Your task to perform on an android device: change the clock display to digital Image 0: 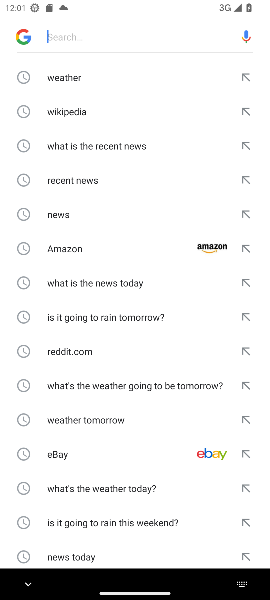
Step 0: press home button
Your task to perform on an android device: change the clock display to digital Image 1: 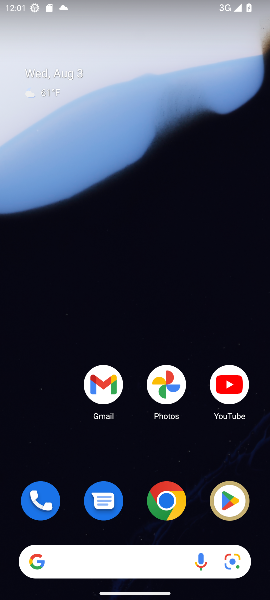
Step 1: drag from (156, 439) to (133, 1)
Your task to perform on an android device: change the clock display to digital Image 2: 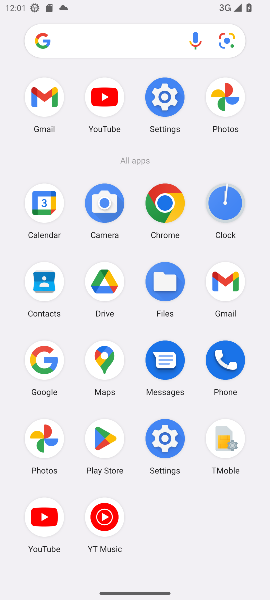
Step 2: click (215, 194)
Your task to perform on an android device: change the clock display to digital Image 3: 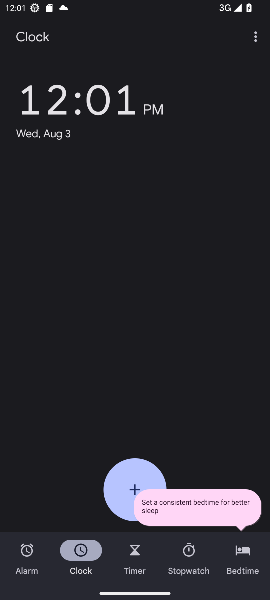
Step 3: click (253, 37)
Your task to perform on an android device: change the clock display to digital Image 4: 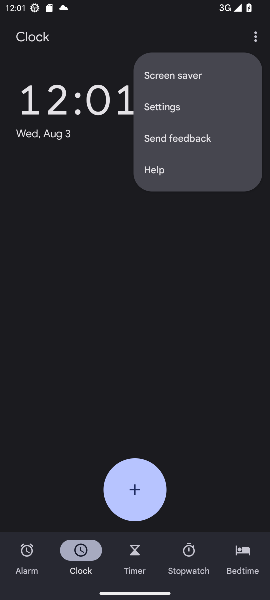
Step 4: click (180, 103)
Your task to perform on an android device: change the clock display to digital Image 5: 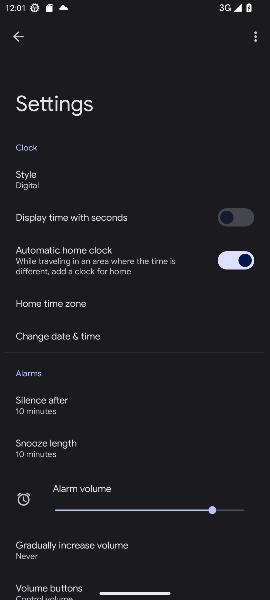
Step 5: click (55, 182)
Your task to perform on an android device: change the clock display to digital Image 6: 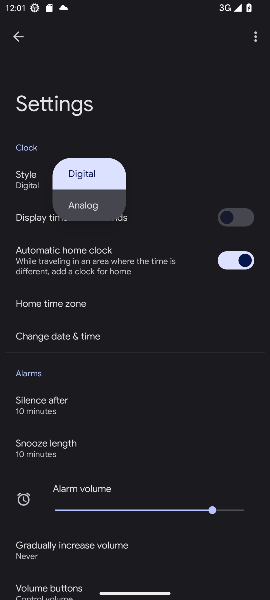
Step 6: click (87, 177)
Your task to perform on an android device: change the clock display to digital Image 7: 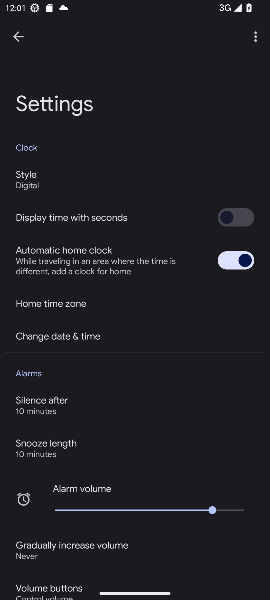
Step 7: task complete